Your task to perform on an android device: Empty the shopping cart on newegg. Image 0: 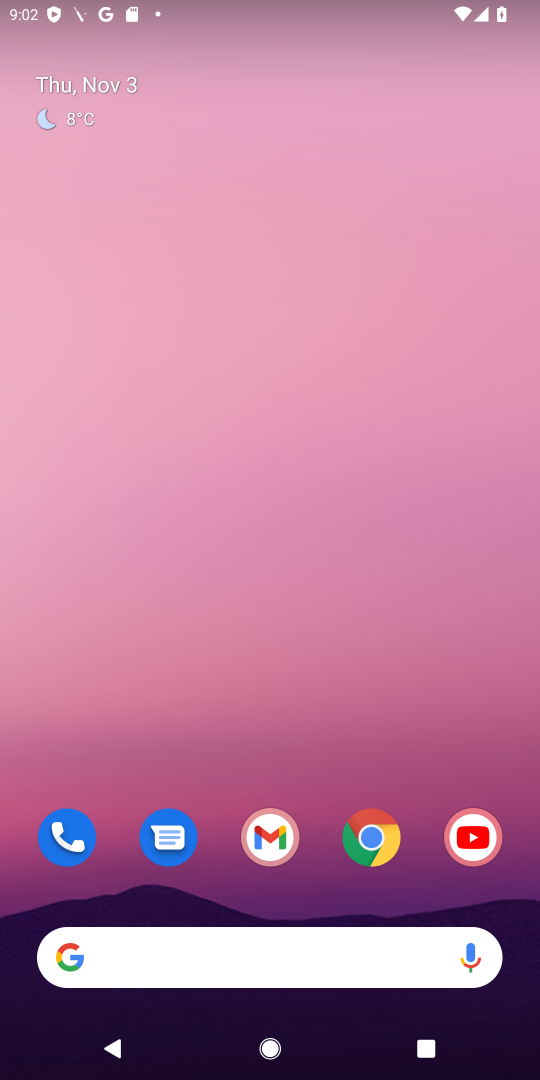
Step 0: click (377, 843)
Your task to perform on an android device: Empty the shopping cart on newegg. Image 1: 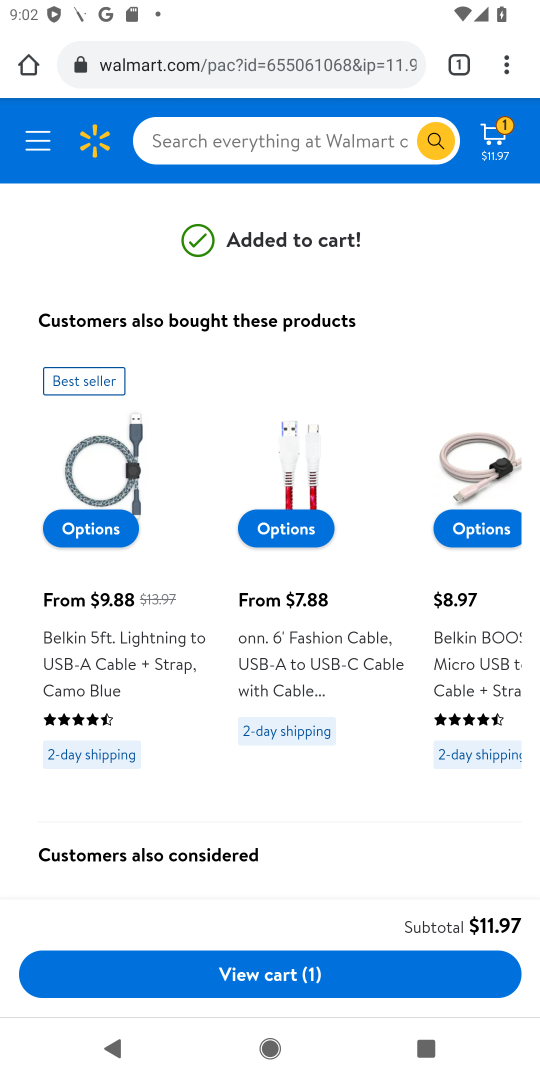
Step 1: click (266, 58)
Your task to perform on an android device: Empty the shopping cart on newegg. Image 2: 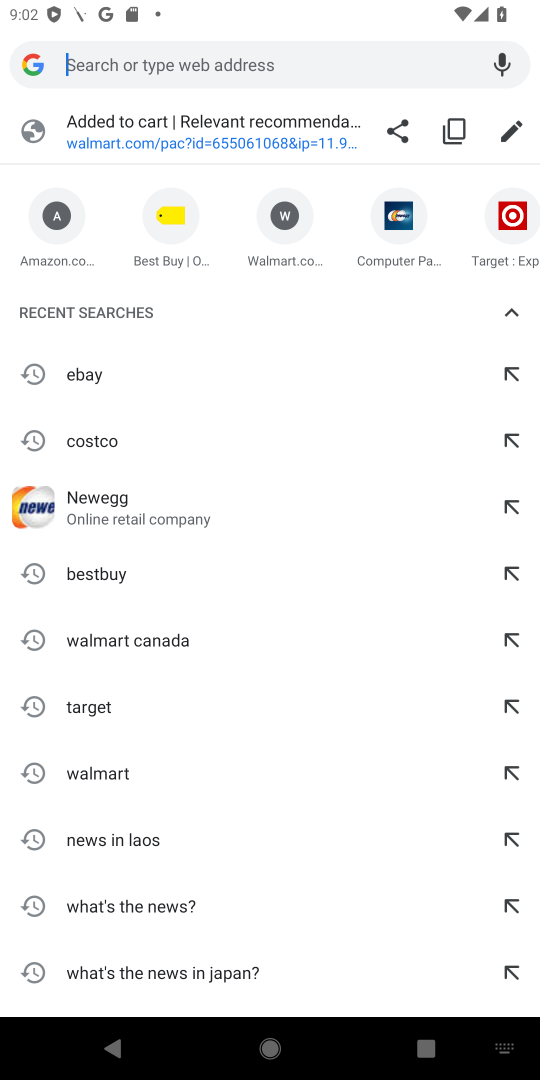
Step 2: click (93, 512)
Your task to perform on an android device: Empty the shopping cart on newegg. Image 3: 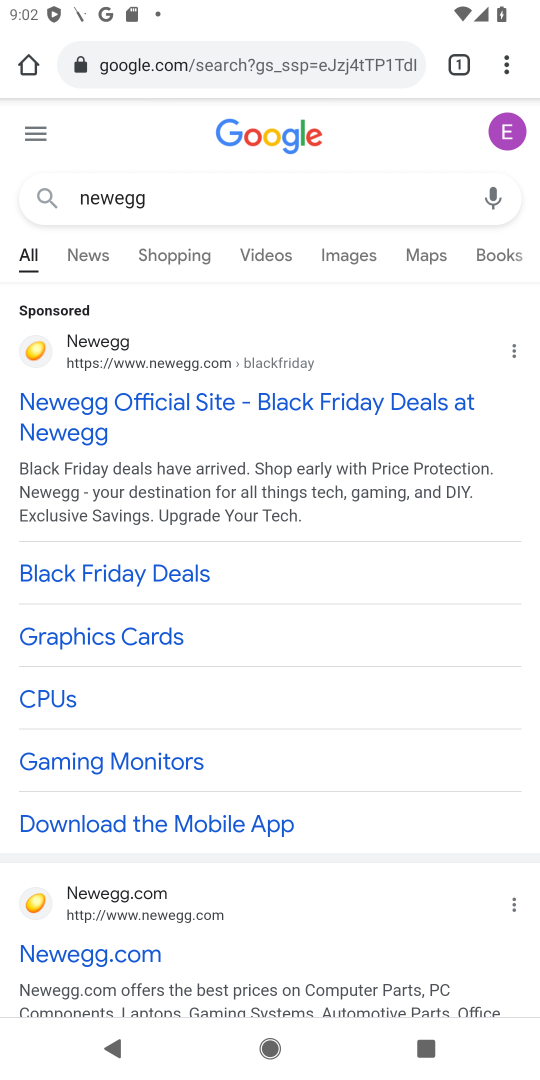
Step 3: click (143, 393)
Your task to perform on an android device: Empty the shopping cart on newegg. Image 4: 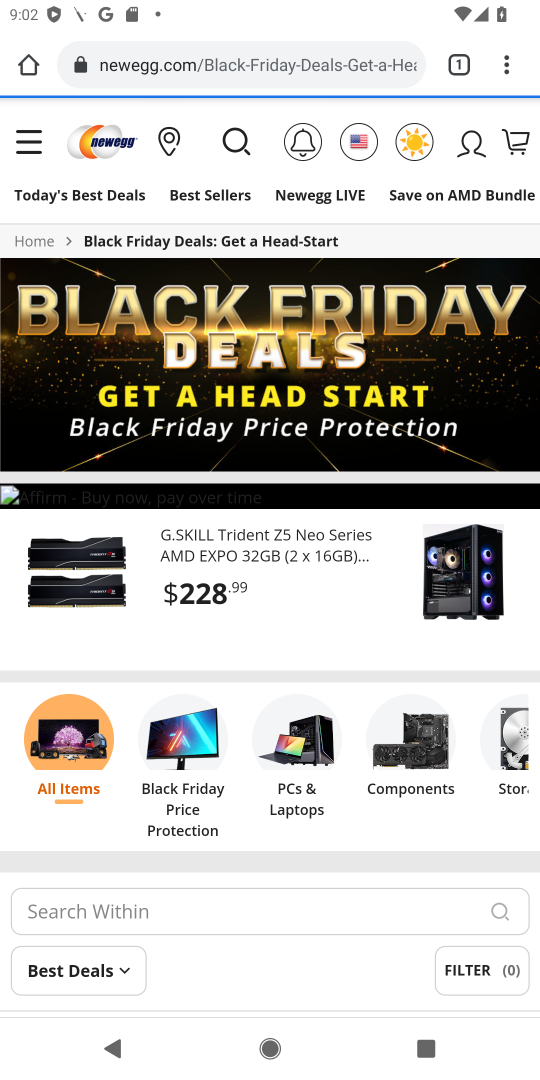
Step 4: click (233, 140)
Your task to perform on an android device: Empty the shopping cart on newegg. Image 5: 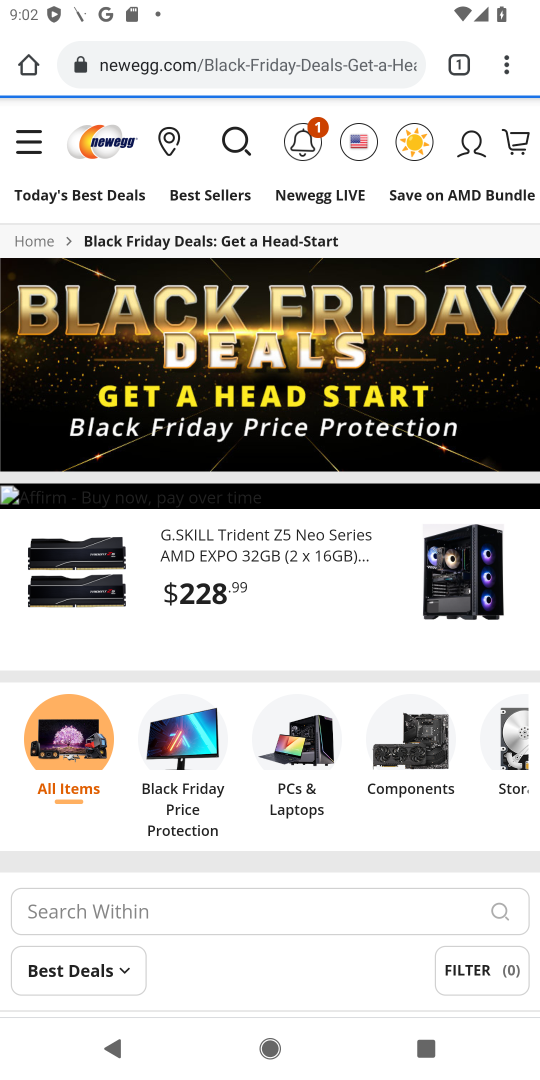
Step 5: click (237, 143)
Your task to perform on an android device: Empty the shopping cart on newegg. Image 6: 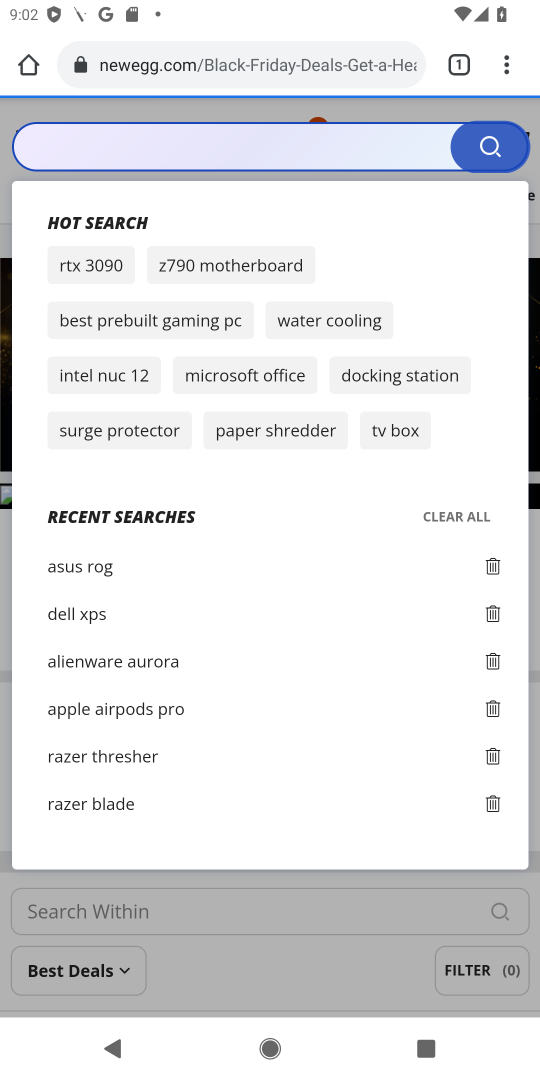
Step 6: click (109, 153)
Your task to perform on an android device: Empty the shopping cart on newegg. Image 7: 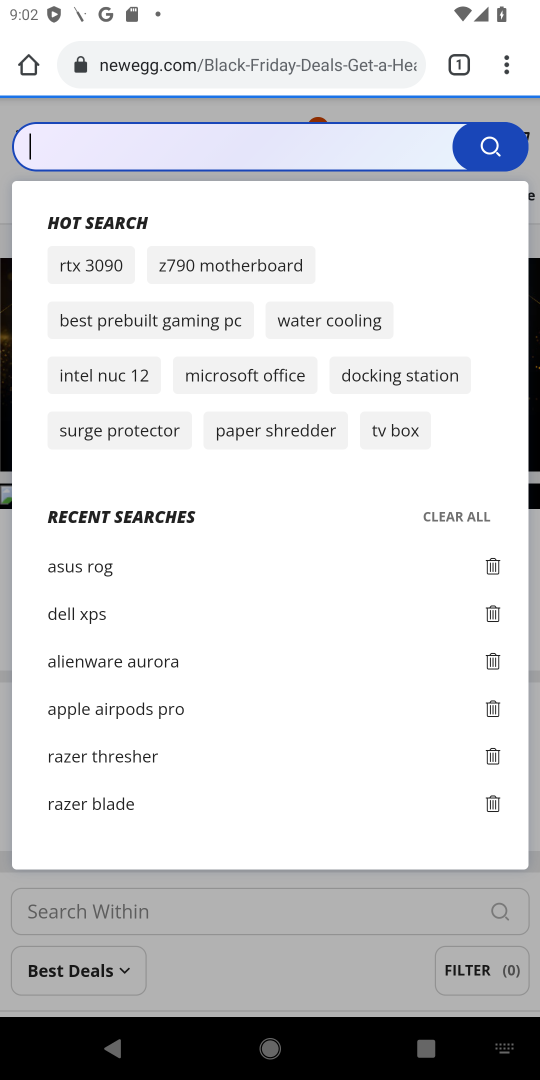
Step 7: press back button
Your task to perform on an android device: Empty the shopping cart on newegg. Image 8: 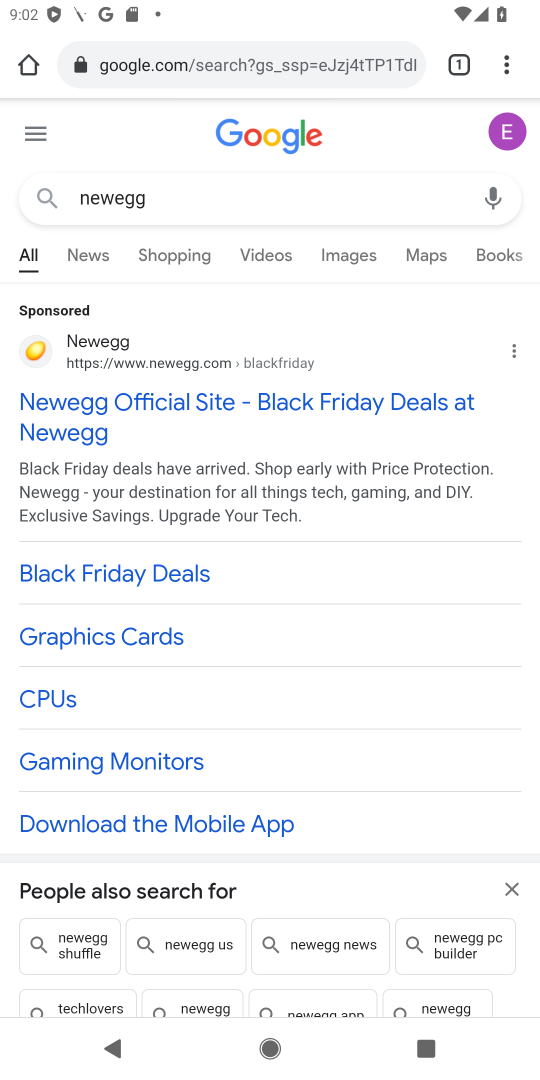
Step 8: click (188, 404)
Your task to perform on an android device: Empty the shopping cart on newegg. Image 9: 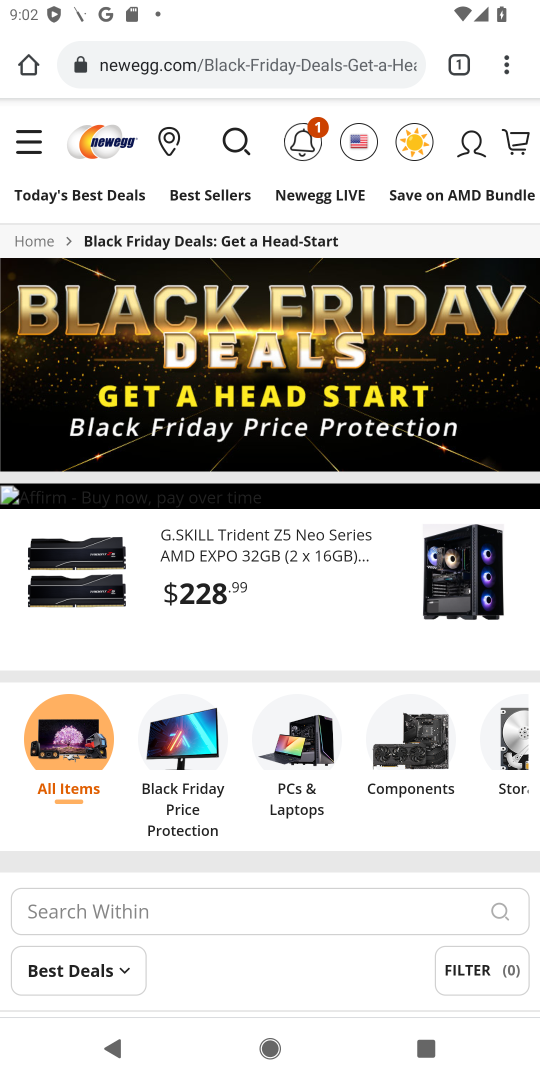
Step 9: click (513, 135)
Your task to perform on an android device: Empty the shopping cart on newegg. Image 10: 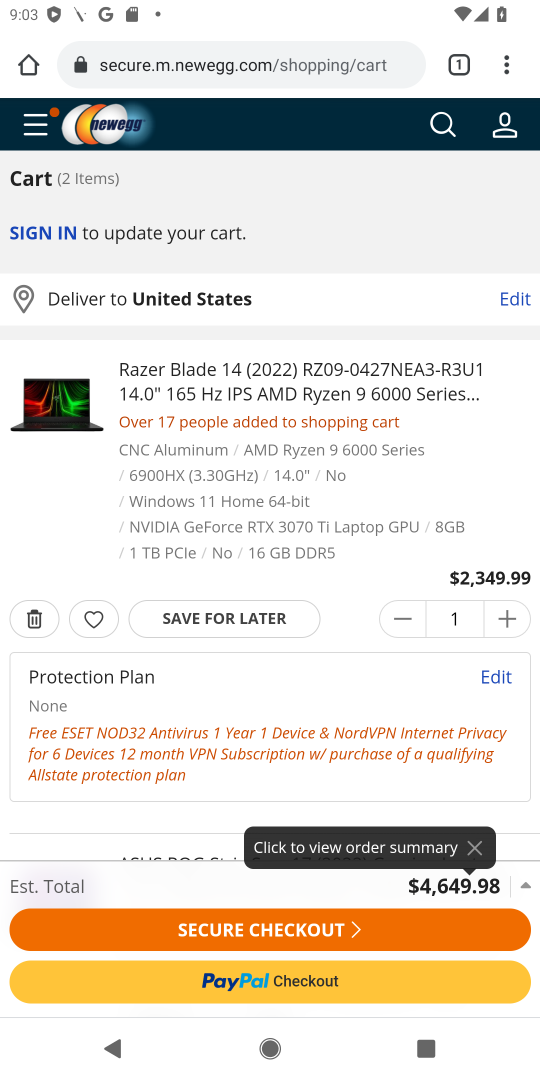
Step 10: click (27, 617)
Your task to perform on an android device: Empty the shopping cart on newegg. Image 11: 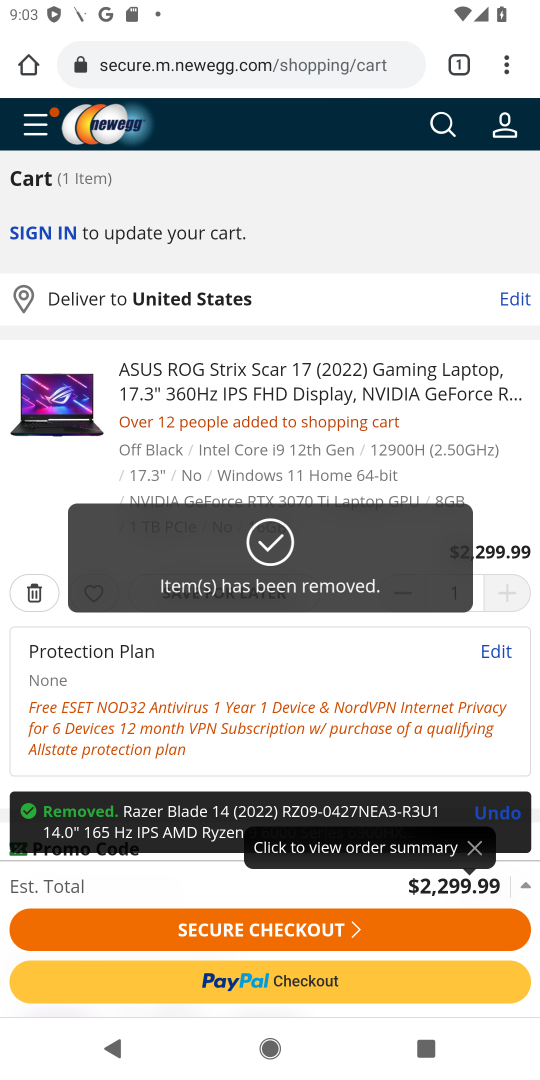
Step 11: click (34, 593)
Your task to perform on an android device: Empty the shopping cart on newegg. Image 12: 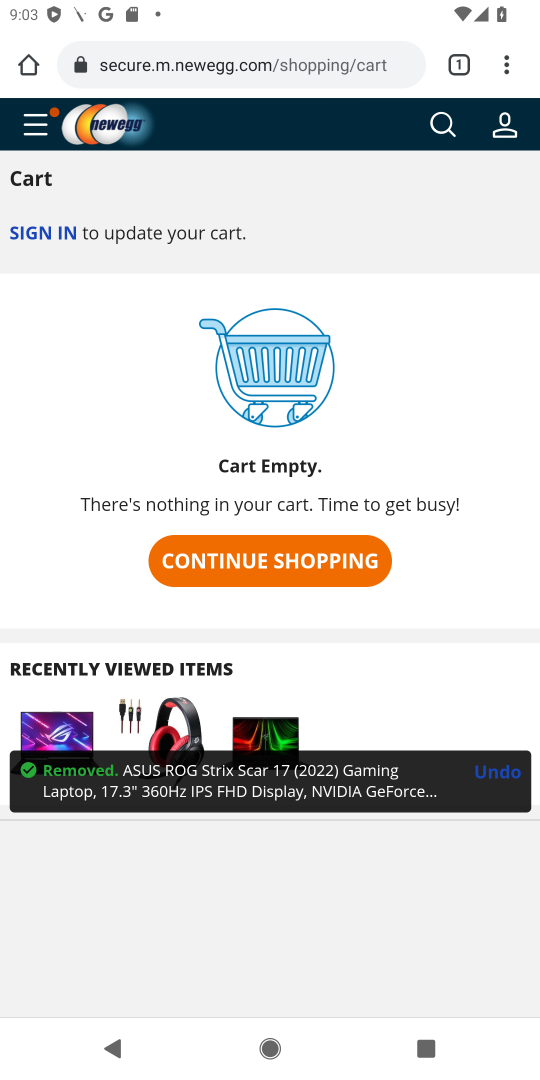
Step 12: task complete